Your task to perform on an android device: Show me popular games on the Play Store Image 0: 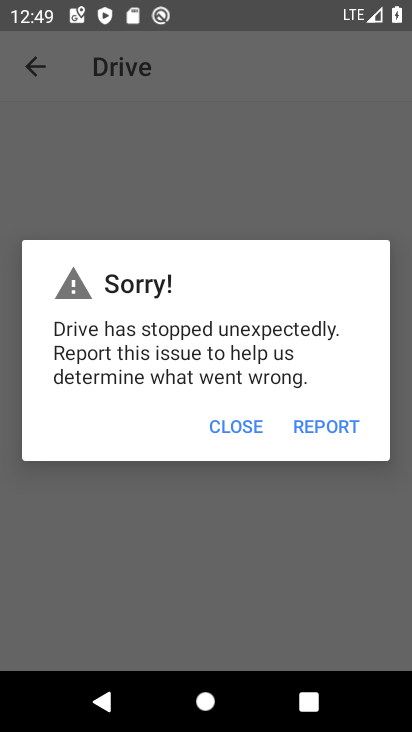
Step 0: press home button
Your task to perform on an android device: Show me popular games on the Play Store Image 1: 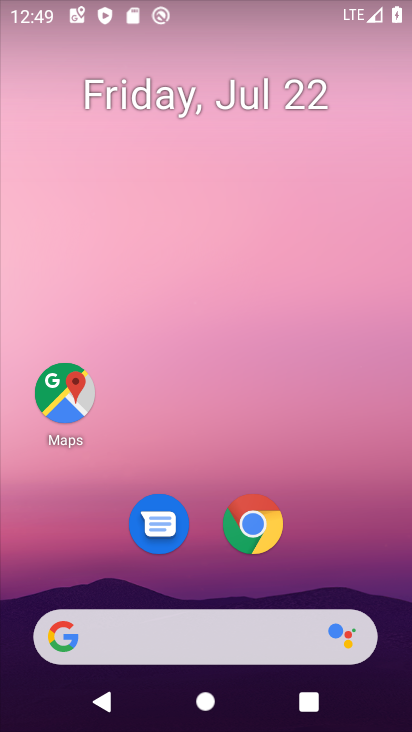
Step 1: drag from (352, 549) to (353, 57)
Your task to perform on an android device: Show me popular games on the Play Store Image 2: 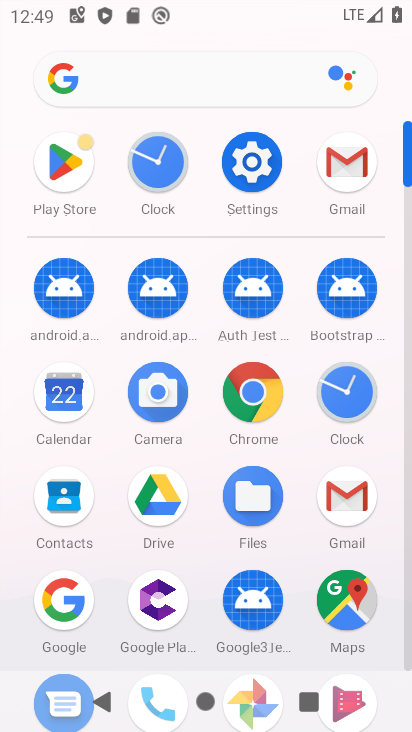
Step 2: drag from (111, 511) to (162, 132)
Your task to perform on an android device: Show me popular games on the Play Store Image 3: 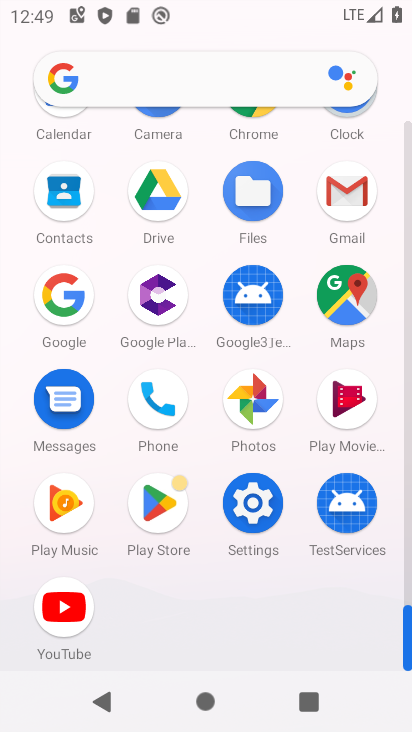
Step 3: click (157, 505)
Your task to perform on an android device: Show me popular games on the Play Store Image 4: 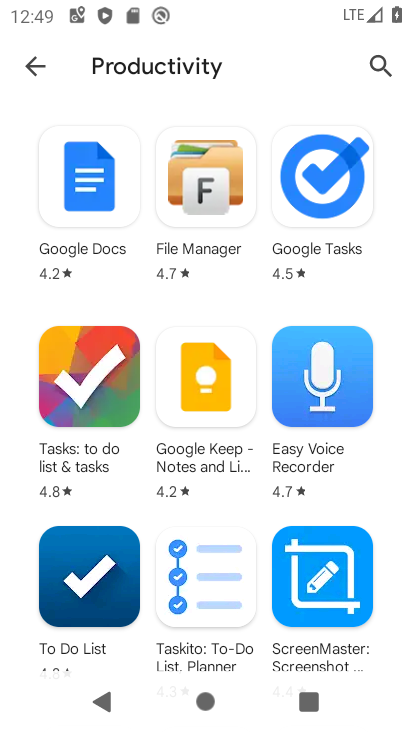
Step 4: click (41, 63)
Your task to perform on an android device: Show me popular games on the Play Store Image 5: 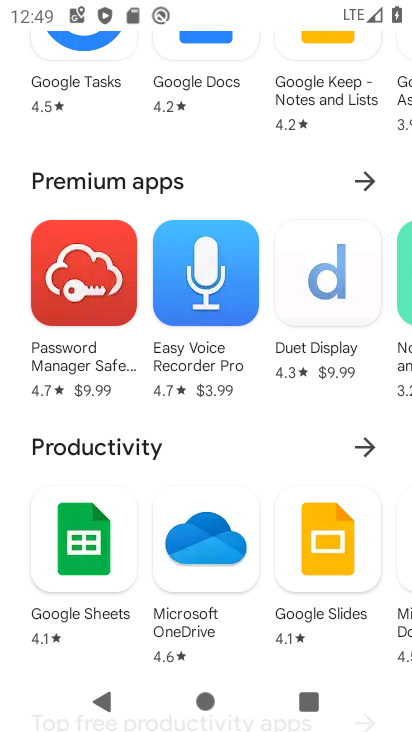
Step 5: drag from (202, 156) to (231, 467)
Your task to perform on an android device: Show me popular games on the Play Store Image 6: 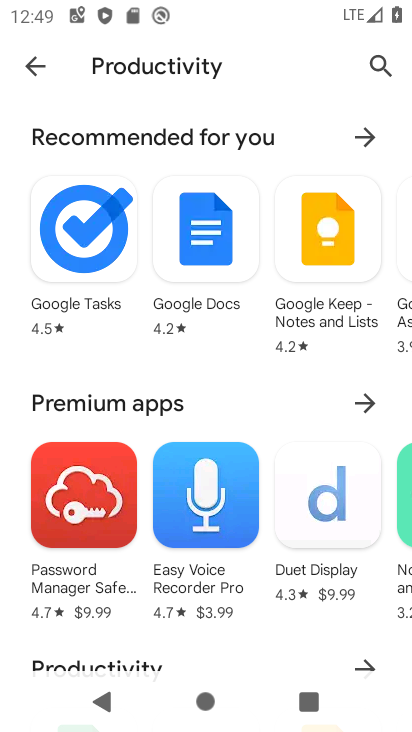
Step 6: click (42, 65)
Your task to perform on an android device: Show me popular games on the Play Store Image 7: 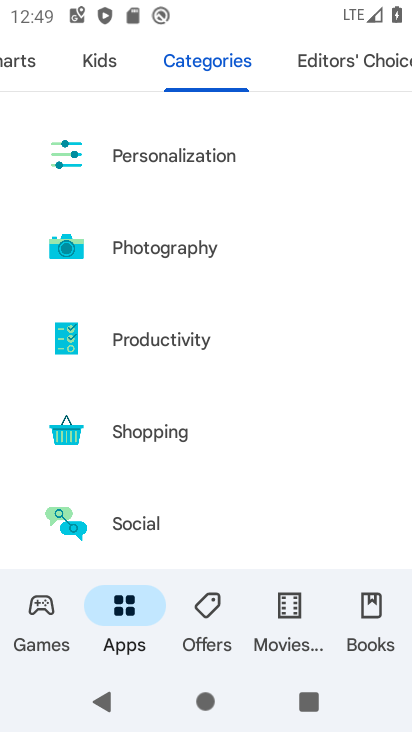
Step 7: click (43, 620)
Your task to perform on an android device: Show me popular games on the Play Store Image 8: 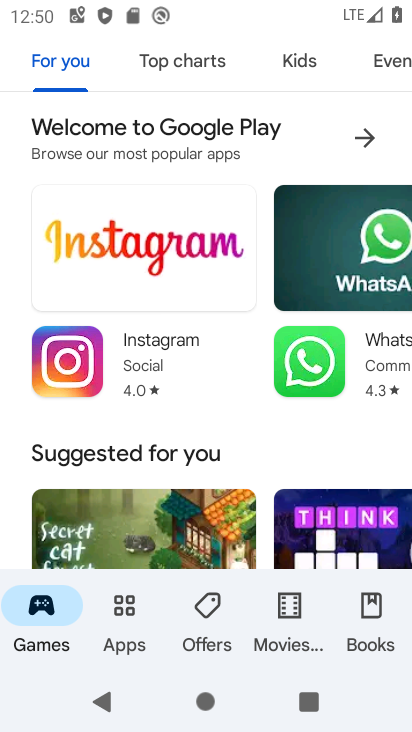
Step 8: drag from (220, 242) to (235, 544)
Your task to perform on an android device: Show me popular games on the Play Store Image 9: 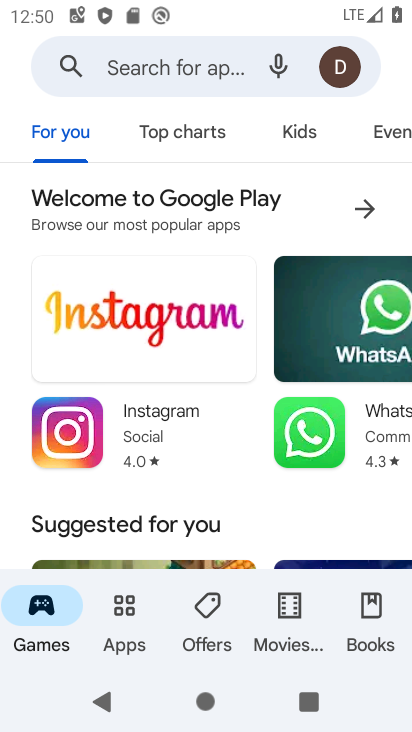
Step 9: drag from (222, 488) to (252, 110)
Your task to perform on an android device: Show me popular games on the Play Store Image 10: 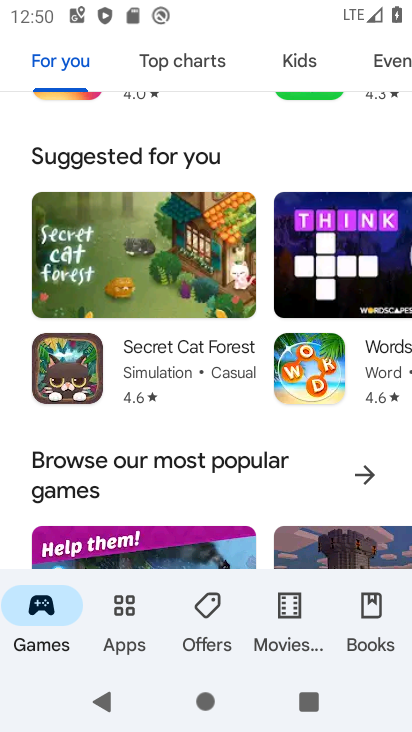
Step 10: click (375, 474)
Your task to perform on an android device: Show me popular games on the Play Store Image 11: 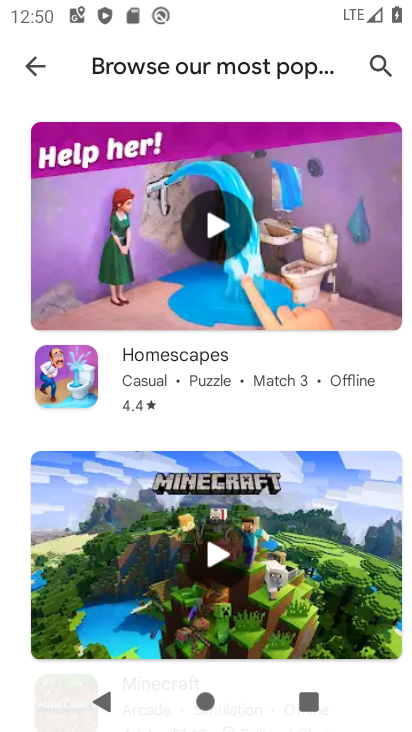
Step 11: task complete